Your task to perform on an android device: change your default location settings in chrome Image 0: 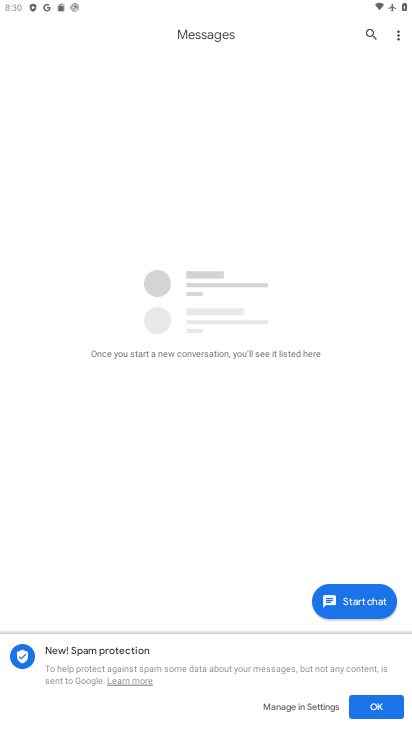
Step 0: press back button
Your task to perform on an android device: change your default location settings in chrome Image 1: 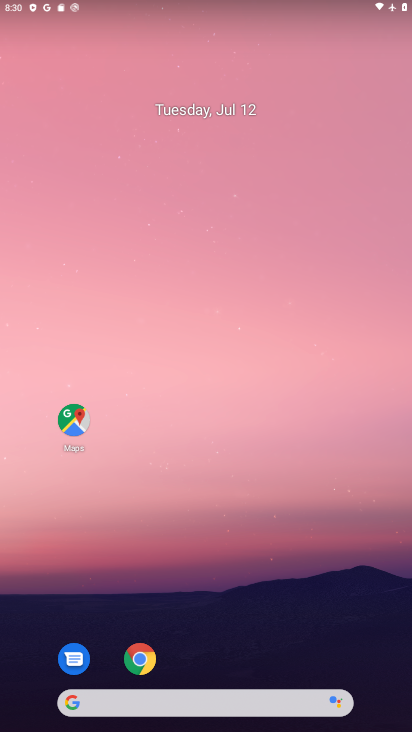
Step 1: drag from (282, 432) to (281, 225)
Your task to perform on an android device: change your default location settings in chrome Image 2: 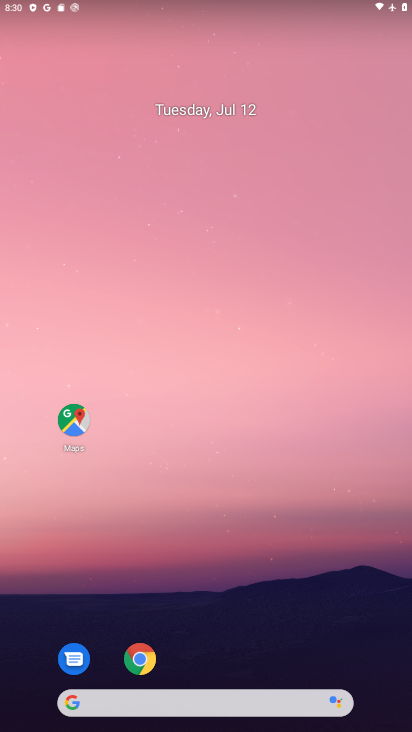
Step 2: drag from (179, 489) to (142, 3)
Your task to perform on an android device: change your default location settings in chrome Image 3: 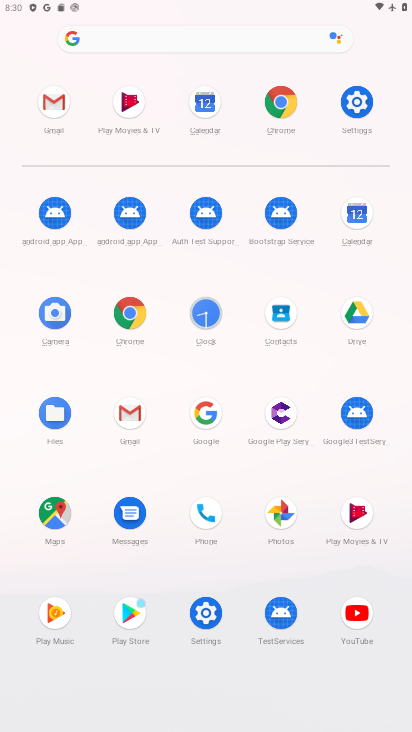
Step 3: click (128, 331)
Your task to perform on an android device: change your default location settings in chrome Image 4: 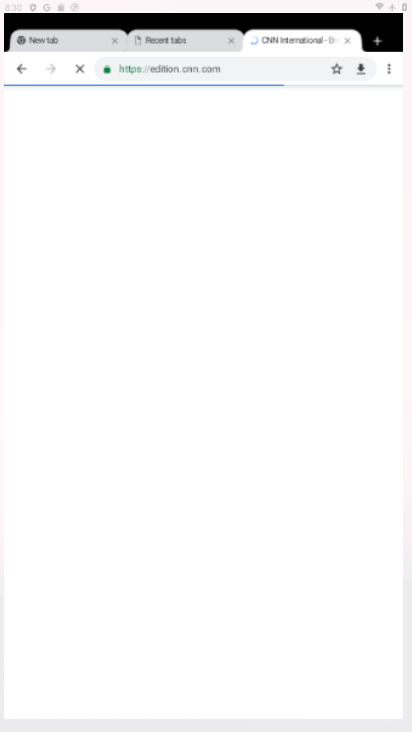
Step 4: click (129, 333)
Your task to perform on an android device: change your default location settings in chrome Image 5: 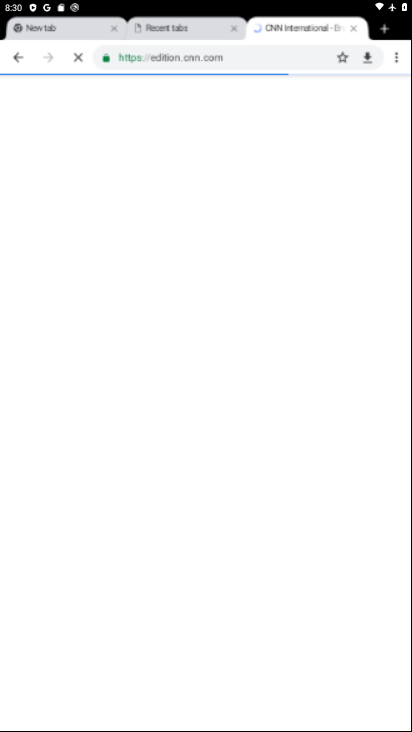
Step 5: click (129, 333)
Your task to perform on an android device: change your default location settings in chrome Image 6: 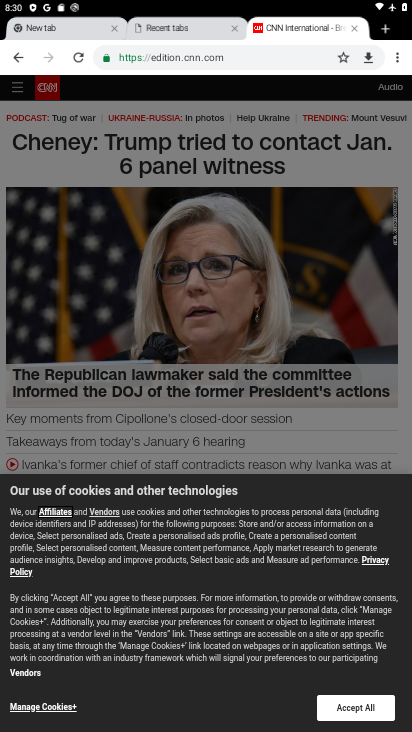
Step 6: drag from (401, 62) to (281, 360)
Your task to perform on an android device: change your default location settings in chrome Image 7: 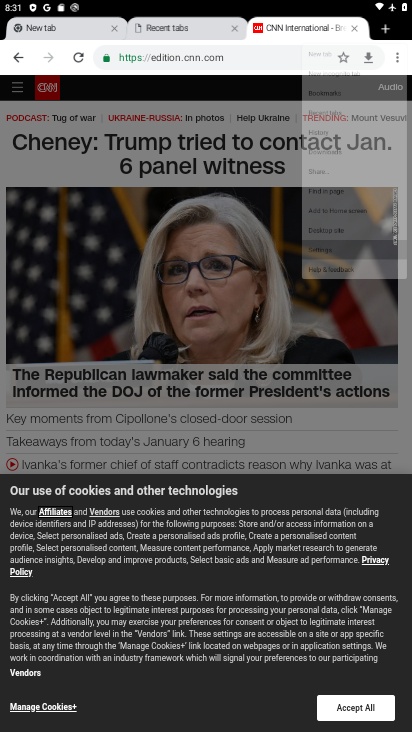
Step 7: click (281, 360)
Your task to perform on an android device: change your default location settings in chrome Image 8: 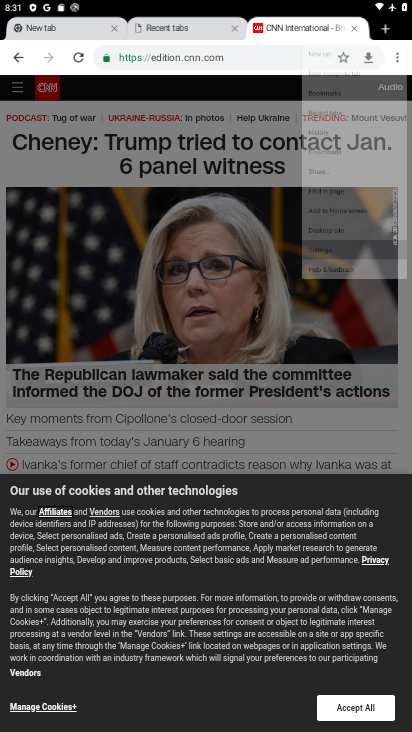
Step 8: click (281, 360)
Your task to perform on an android device: change your default location settings in chrome Image 9: 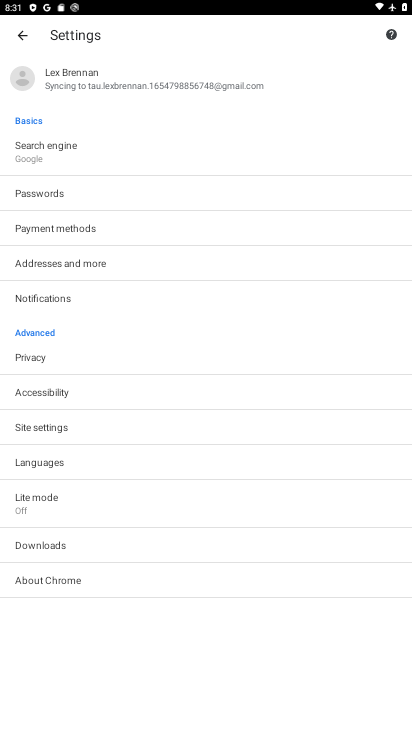
Step 9: click (46, 464)
Your task to perform on an android device: change your default location settings in chrome Image 10: 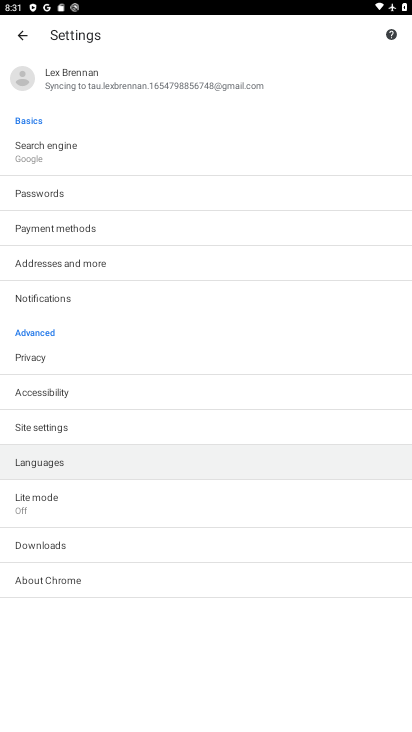
Step 10: click (49, 458)
Your task to perform on an android device: change your default location settings in chrome Image 11: 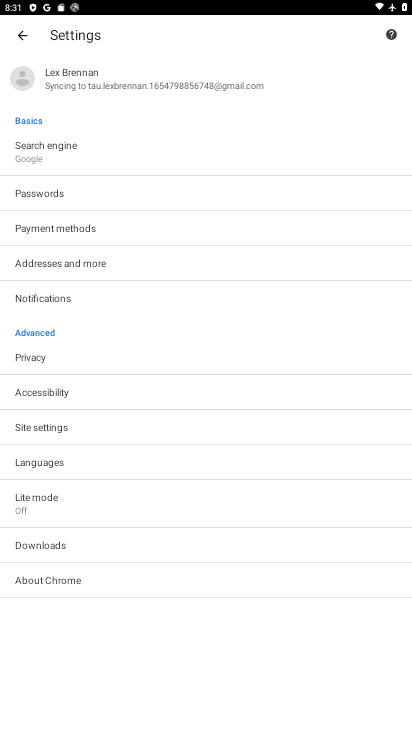
Step 11: click (49, 458)
Your task to perform on an android device: change your default location settings in chrome Image 12: 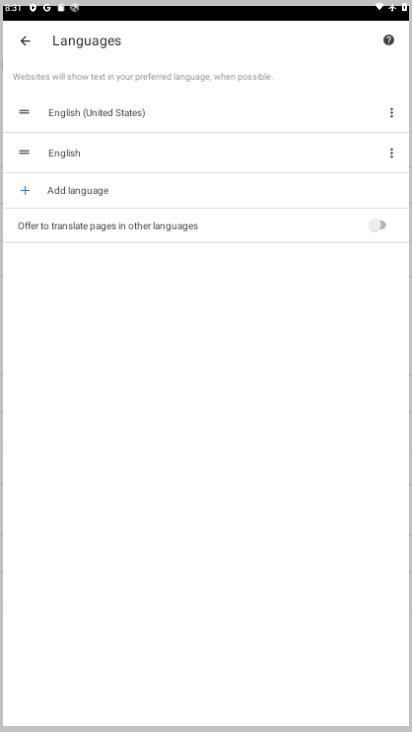
Step 12: click (52, 458)
Your task to perform on an android device: change your default location settings in chrome Image 13: 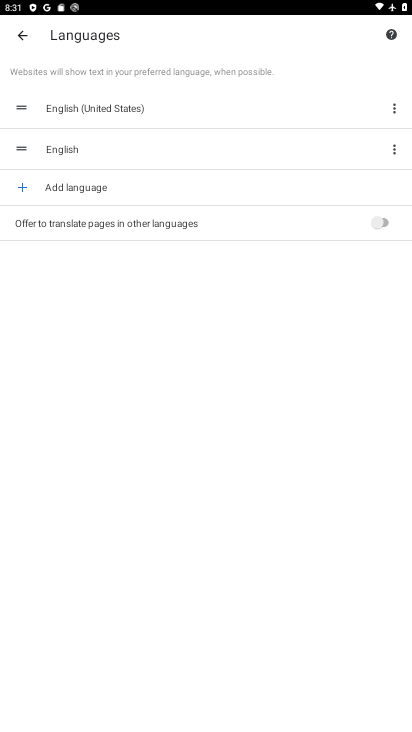
Step 13: click (375, 216)
Your task to perform on an android device: change your default location settings in chrome Image 14: 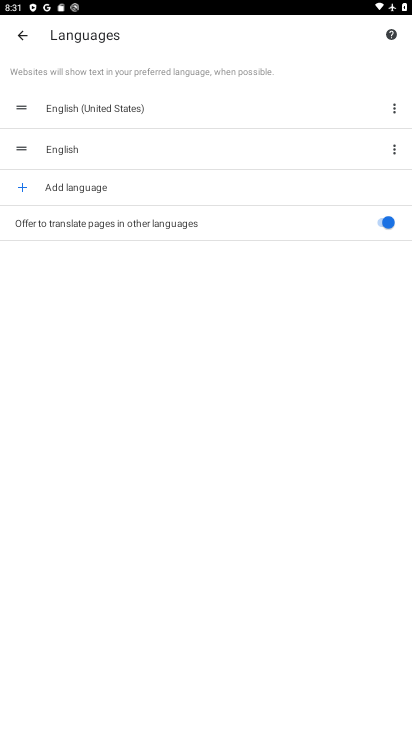
Step 14: task complete